Your task to perform on an android device: Open Chrome and go to settings Image 0: 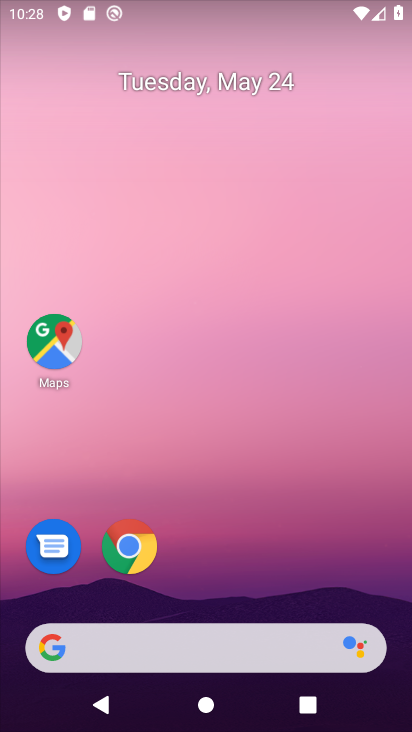
Step 0: click (130, 550)
Your task to perform on an android device: Open Chrome and go to settings Image 1: 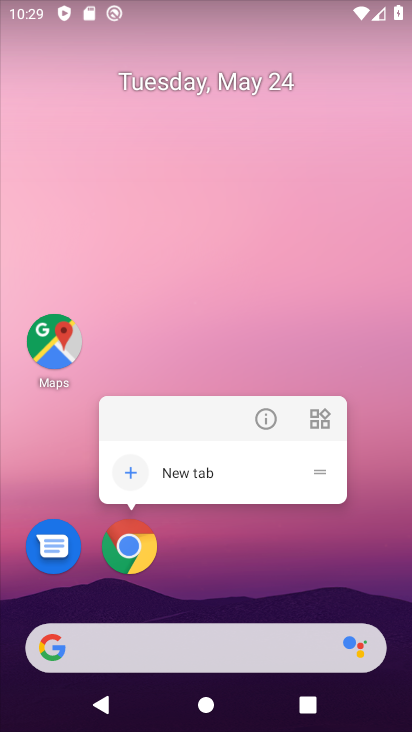
Step 1: click (268, 424)
Your task to perform on an android device: Open Chrome and go to settings Image 2: 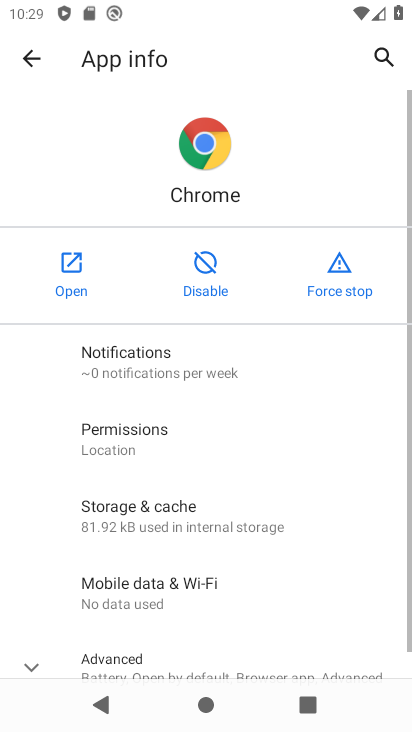
Step 2: click (70, 290)
Your task to perform on an android device: Open Chrome and go to settings Image 3: 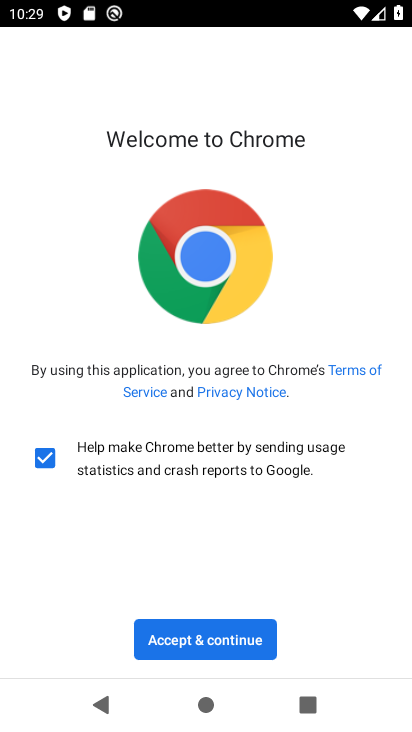
Step 3: click (167, 643)
Your task to perform on an android device: Open Chrome and go to settings Image 4: 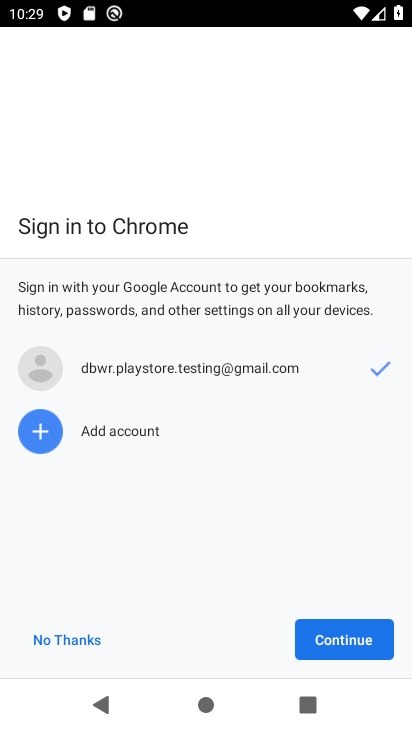
Step 4: click (374, 649)
Your task to perform on an android device: Open Chrome and go to settings Image 5: 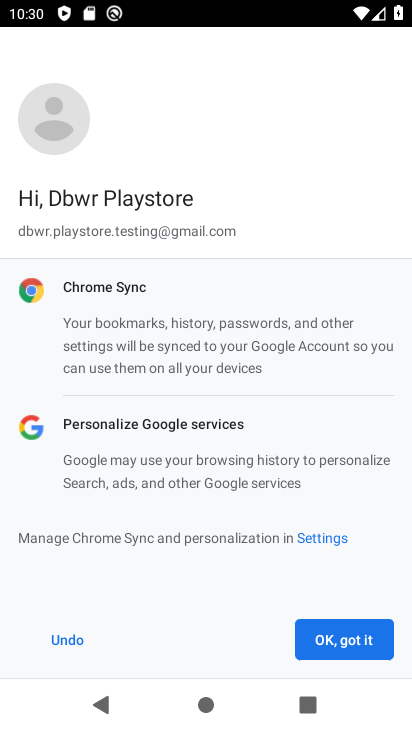
Step 5: click (330, 653)
Your task to perform on an android device: Open Chrome and go to settings Image 6: 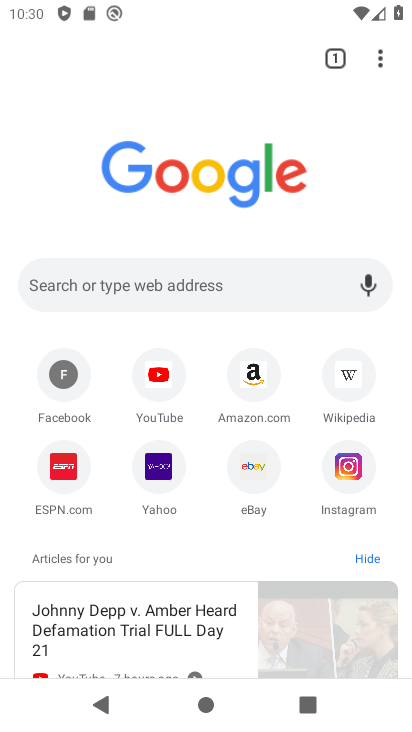
Step 6: click (380, 57)
Your task to perform on an android device: Open Chrome and go to settings Image 7: 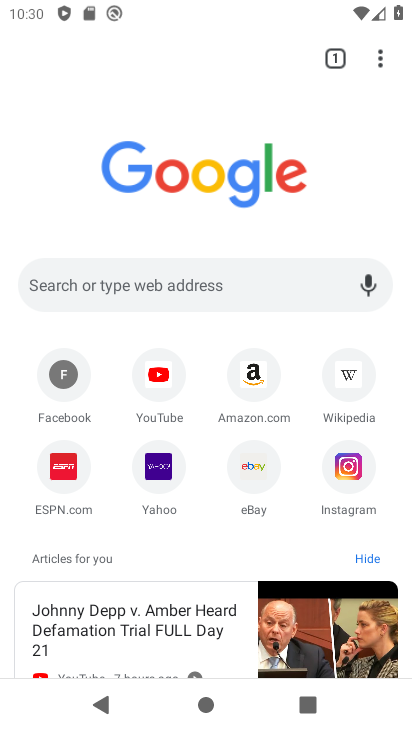
Step 7: click (381, 63)
Your task to perform on an android device: Open Chrome and go to settings Image 8: 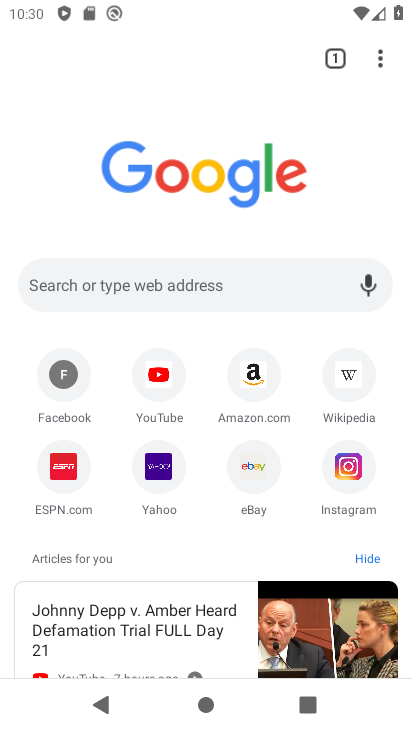
Step 8: click (381, 64)
Your task to perform on an android device: Open Chrome and go to settings Image 9: 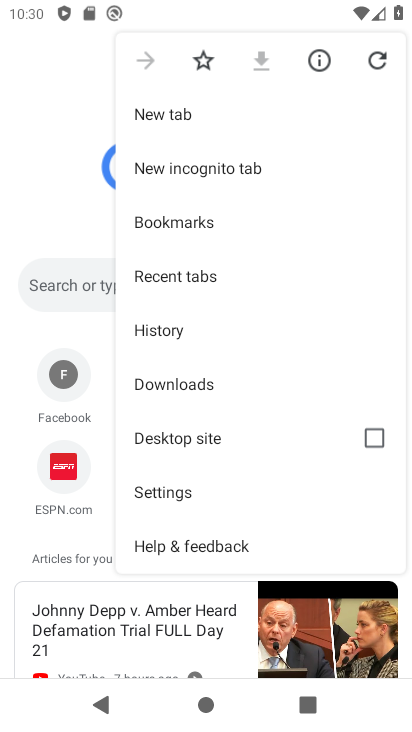
Step 9: click (140, 492)
Your task to perform on an android device: Open Chrome and go to settings Image 10: 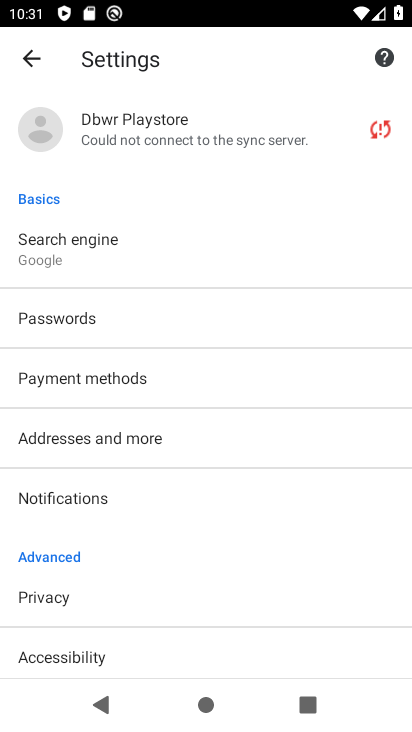
Step 10: task complete